Your task to perform on an android device: choose inbox layout in the gmail app Image 0: 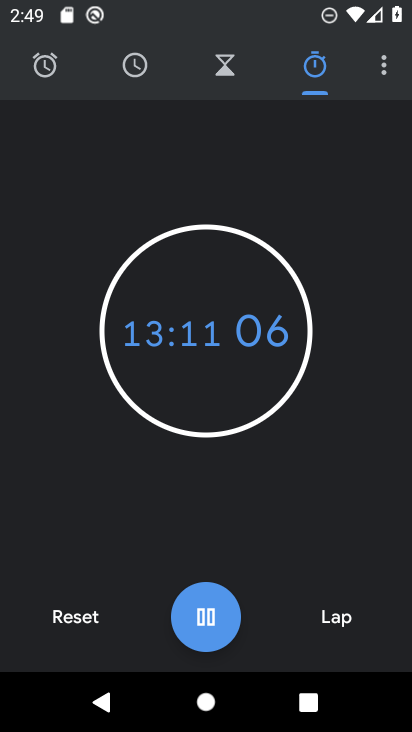
Step 0: press home button
Your task to perform on an android device: choose inbox layout in the gmail app Image 1: 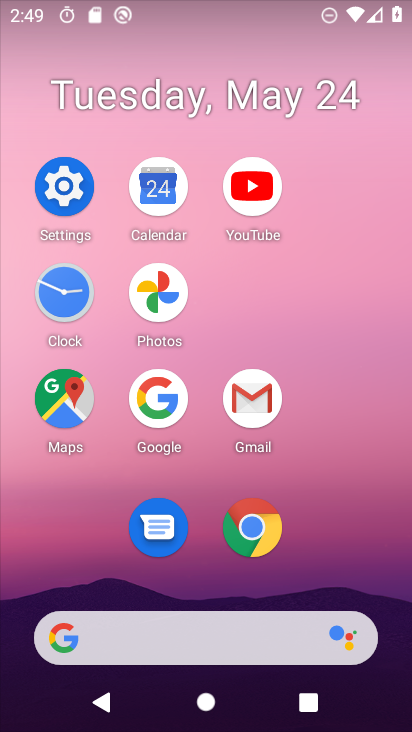
Step 1: click (263, 397)
Your task to perform on an android device: choose inbox layout in the gmail app Image 2: 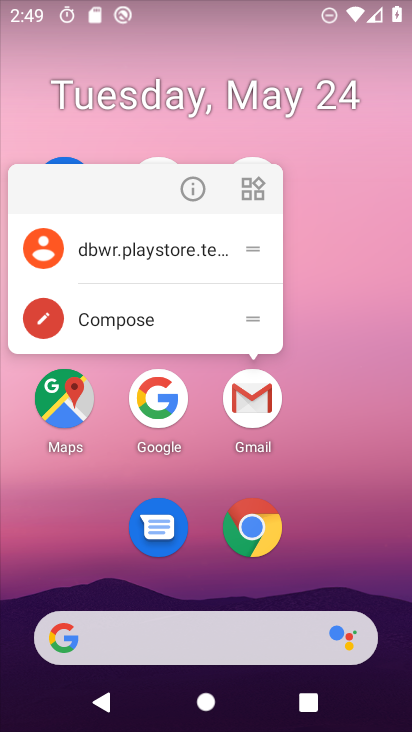
Step 2: click (266, 399)
Your task to perform on an android device: choose inbox layout in the gmail app Image 3: 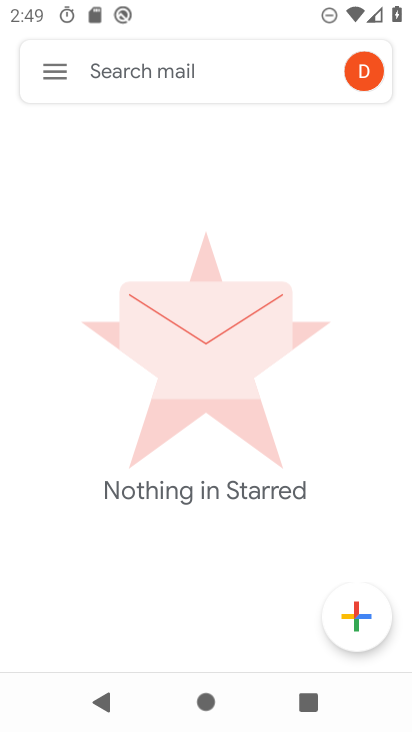
Step 3: click (66, 67)
Your task to perform on an android device: choose inbox layout in the gmail app Image 4: 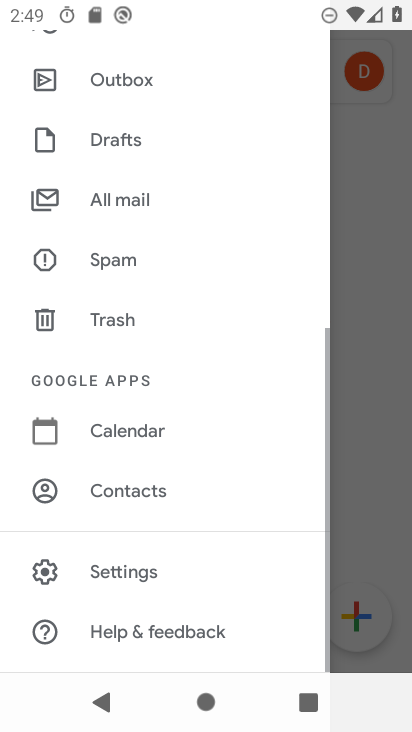
Step 4: drag from (259, 527) to (252, 294)
Your task to perform on an android device: choose inbox layout in the gmail app Image 5: 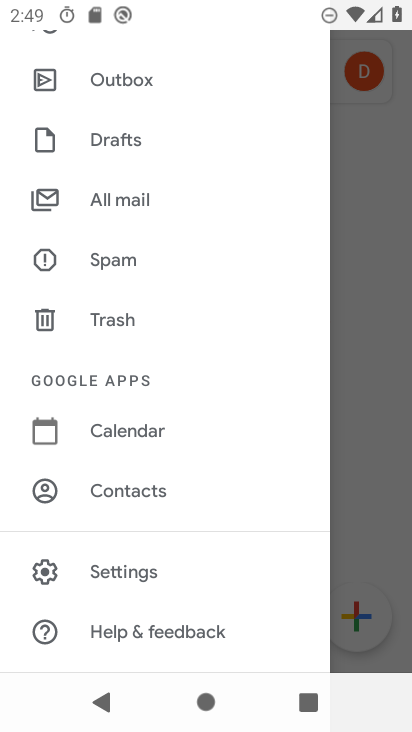
Step 5: click (186, 563)
Your task to perform on an android device: choose inbox layout in the gmail app Image 6: 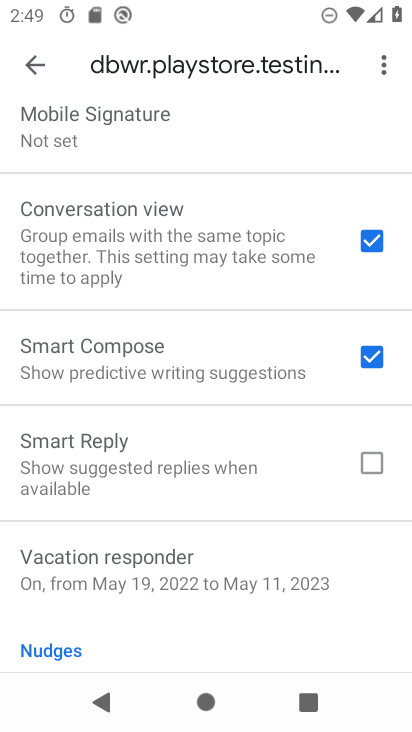
Step 6: drag from (230, 188) to (226, 641)
Your task to perform on an android device: choose inbox layout in the gmail app Image 7: 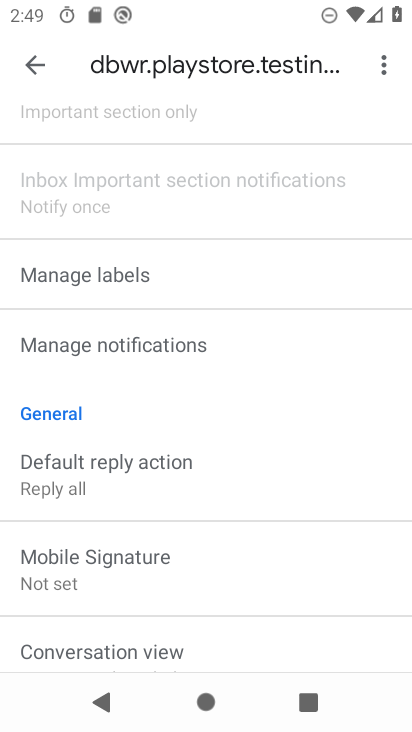
Step 7: drag from (256, 336) to (249, 557)
Your task to perform on an android device: choose inbox layout in the gmail app Image 8: 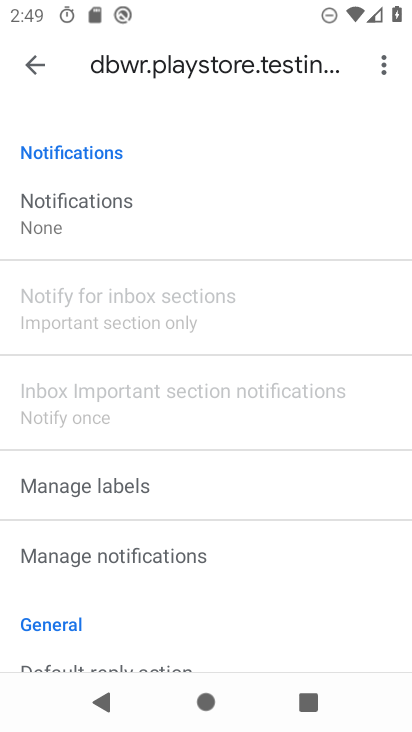
Step 8: drag from (249, 212) to (245, 551)
Your task to perform on an android device: choose inbox layout in the gmail app Image 9: 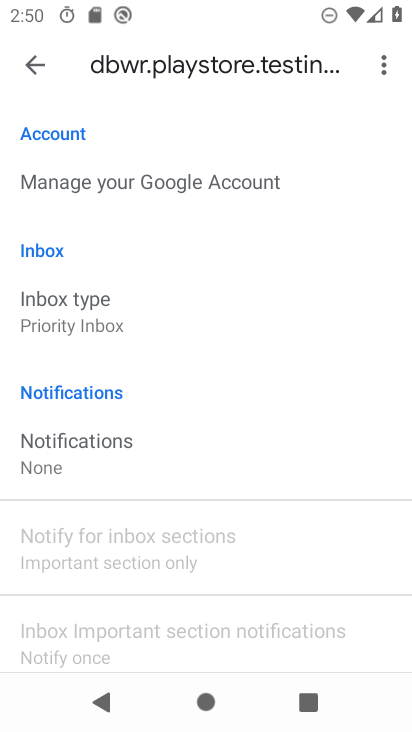
Step 9: click (177, 306)
Your task to perform on an android device: choose inbox layout in the gmail app Image 10: 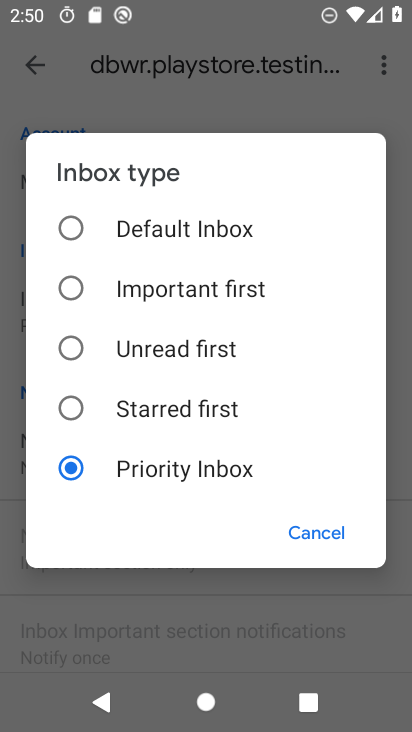
Step 10: task complete